Your task to perform on an android device: Open notification settings Image 0: 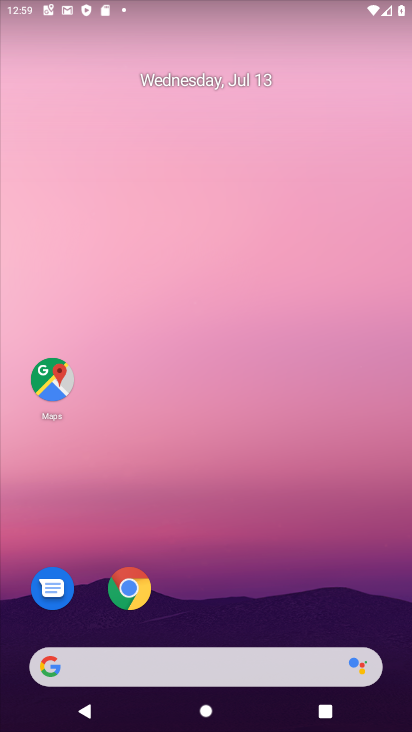
Step 0: drag from (247, 559) to (258, 312)
Your task to perform on an android device: Open notification settings Image 1: 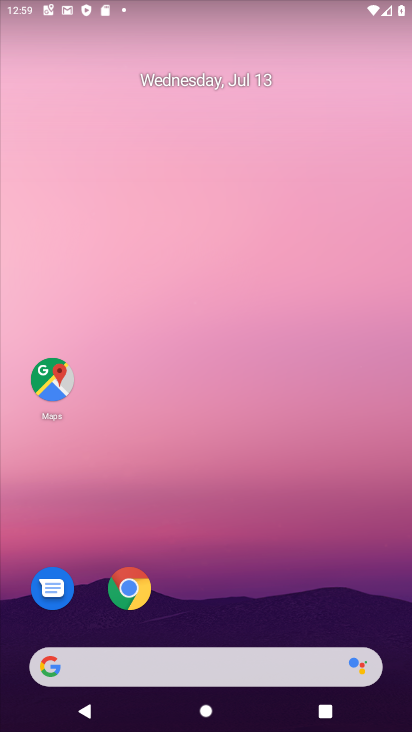
Step 1: drag from (200, 654) to (213, 246)
Your task to perform on an android device: Open notification settings Image 2: 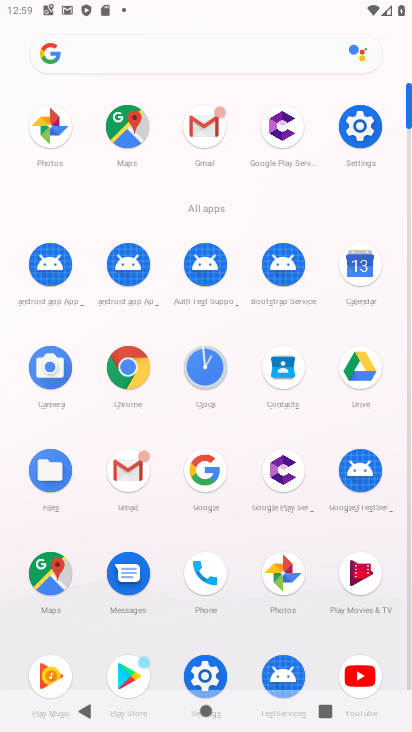
Step 2: click (364, 128)
Your task to perform on an android device: Open notification settings Image 3: 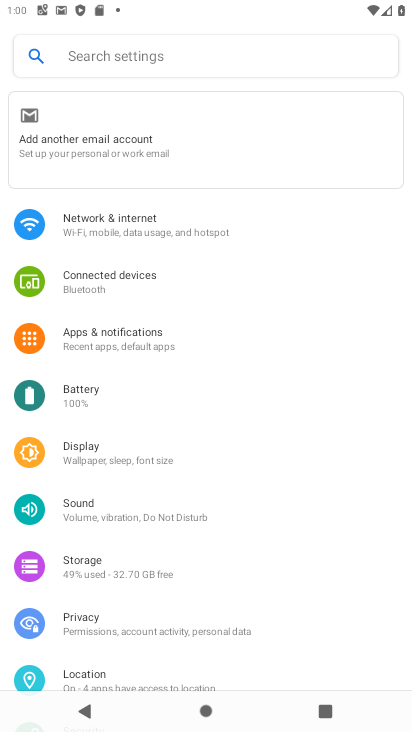
Step 3: click (105, 342)
Your task to perform on an android device: Open notification settings Image 4: 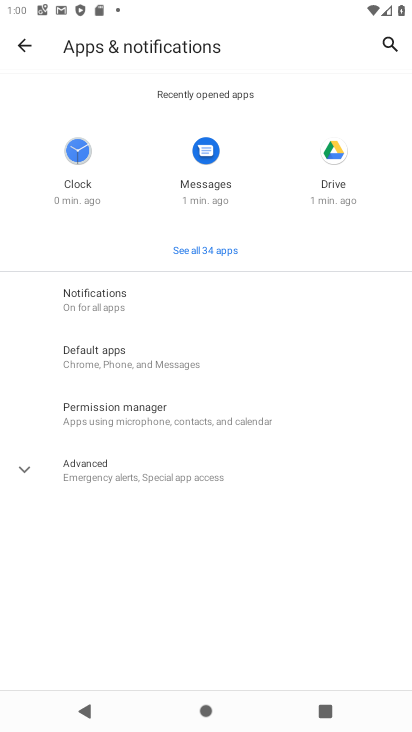
Step 4: click (104, 287)
Your task to perform on an android device: Open notification settings Image 5: 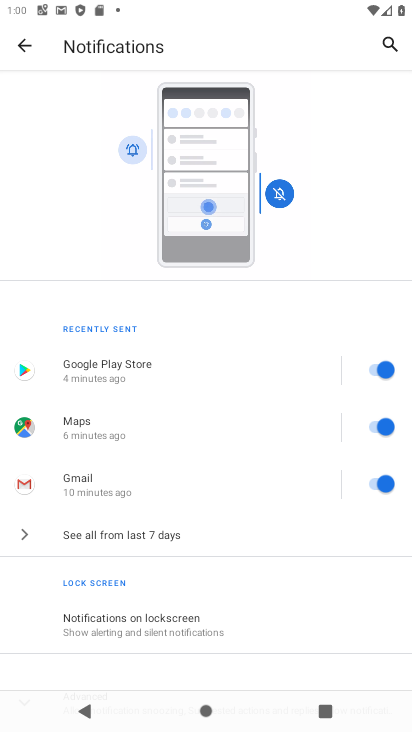
Step 5: drag from (285, 624) to (324, 345)
Your task to perform on an android device: Open notification settings Image 6: 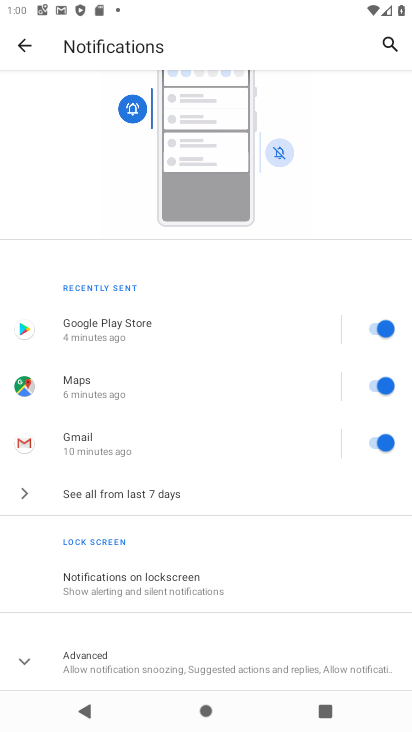
Step 6: click (100, 664)
Your task to perform on an android device: Open notification settings Image 7: 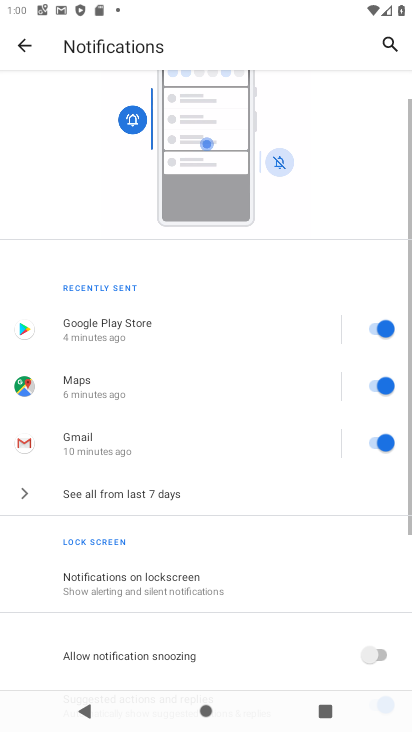
Step 7: task complete